Your task to perform on an android device: Search for sushi restaurants on Maps Image 0: 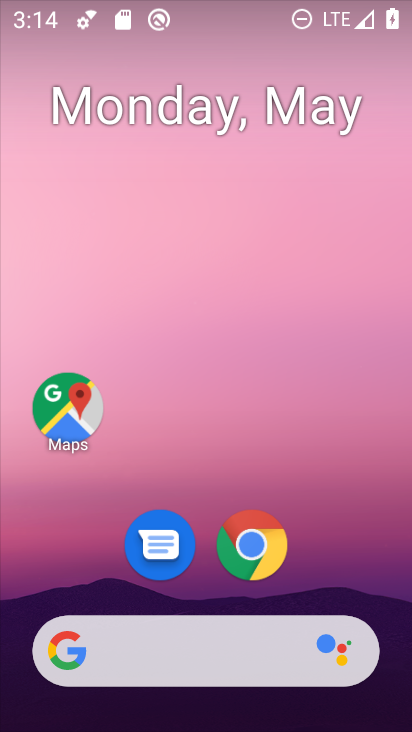
Step 0: click (68, 400)
Your task to perform on an android device: Search for sushi restaurants on Maps Image 1: 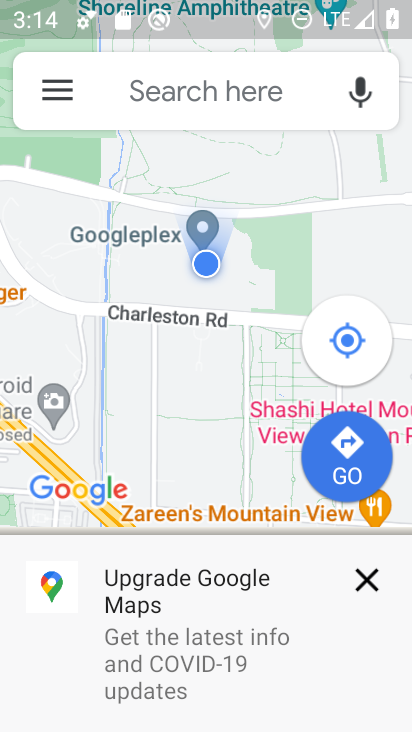
Step 1: click (210, 81)
Your task to perform on an android device: Search for sushi restaurants on Maps Image 2: 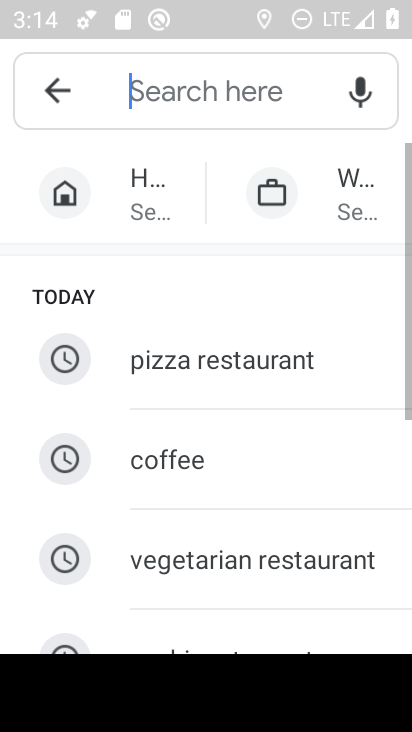
Step 2: drag from (245, 589) to (235, 291)
Your task to perform on an android device: Search for sushi restaurants on Maps Image 3: 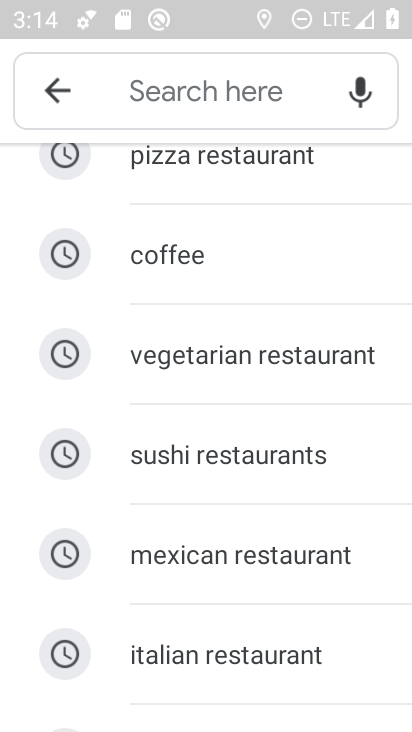
Step 3: click (220, 462)
Your task to perform on an android device: Search for sushi restaurants on Maps Image 4: 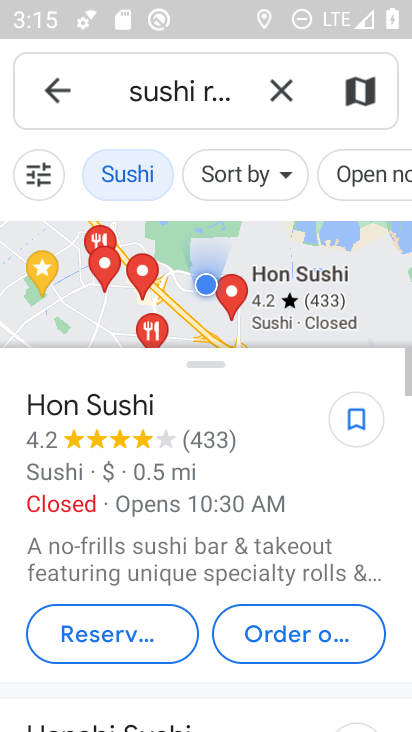
Step 4: task complete